Your task to perform on an android device: Go to notification settings Image 0: 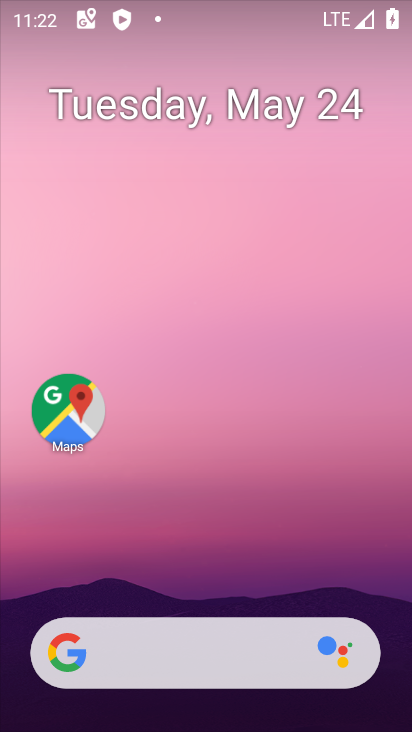
Step 0: drag from (172, 670) to (185, 424)
Your task to perform on an android device: Go to notification settings Image 1: 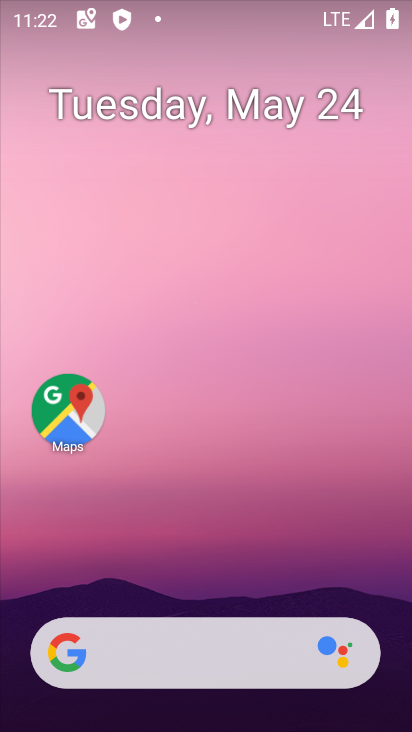
Step 1: drag from (210, 649) to (226, 156)
Your task to perform on an android device: Go to notification settings Image 2: 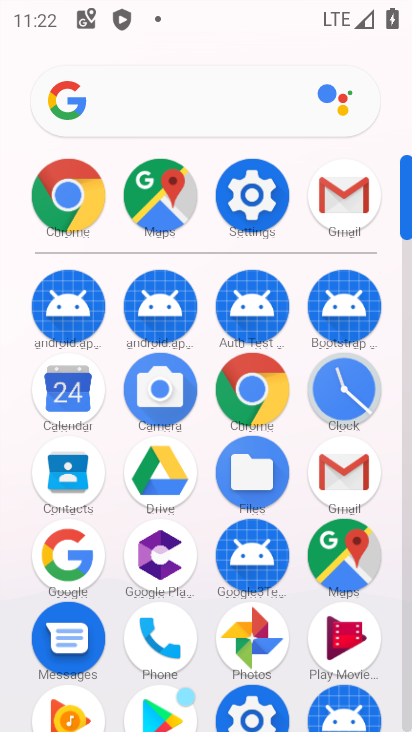
Step 2: click (245, 195)
Your task to perform on an android device: Go to notification settings Image 3: 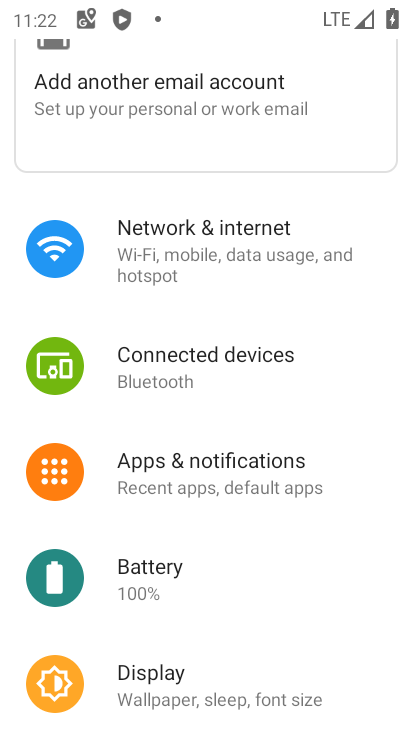
Step 3: click (212, 470)
Your task to perform on an android device: Go to notification settings Image 4: 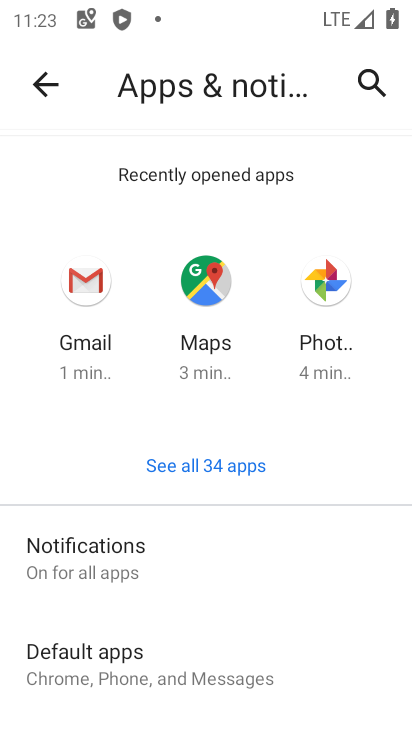
Step 4: task complete